Your task to perform on an android device: turn on translation in the chrome app Image 0: 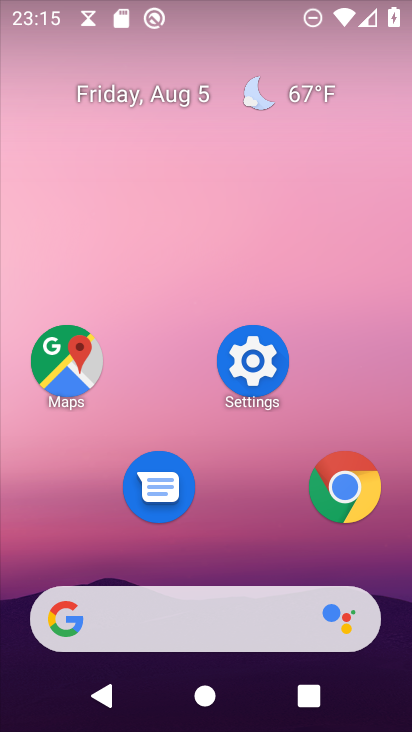
Step 0: click (350, 488)
Your task to perform on an android device: turn on translation in the chrome app Image 1: 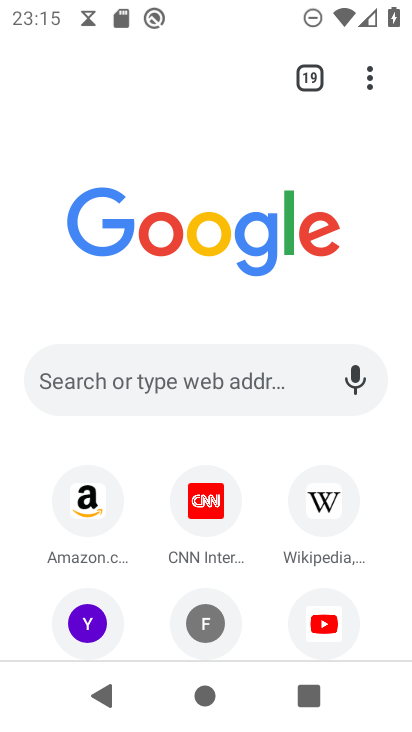
Step 1: drag from (365, 79) to (219, 556)
Your task to perform on an android device: turn on translation in the chrome app Image 2: 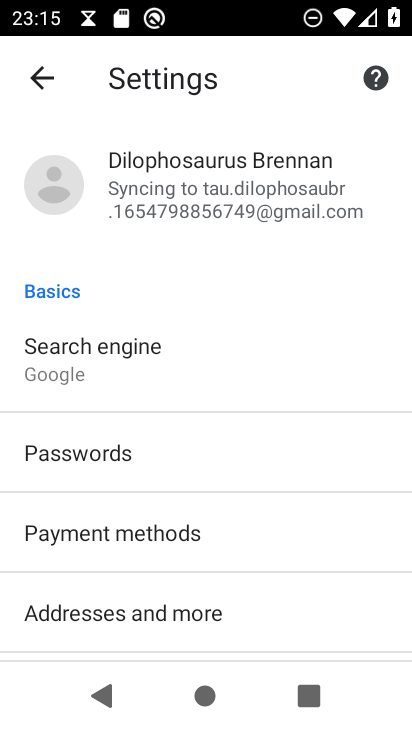
Step 2: drag from (255, 608) to (325, 129)
Your task to perform on an android device: turn on translation in the chrome app Image 3: 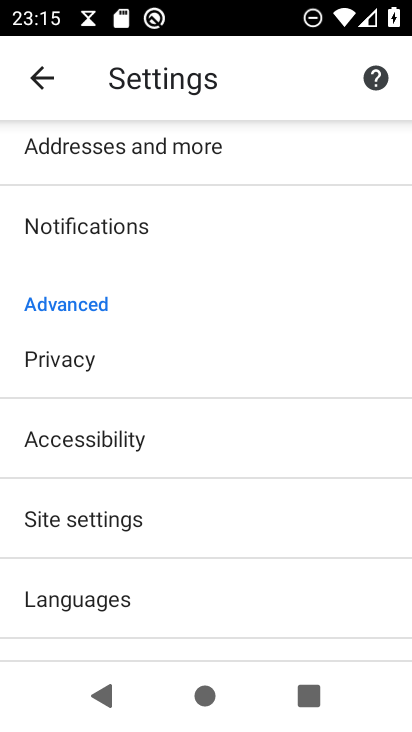
Step 3: click (155, 610)
Your task to perform on an android device: turn on translation in the chrome app Image 4: 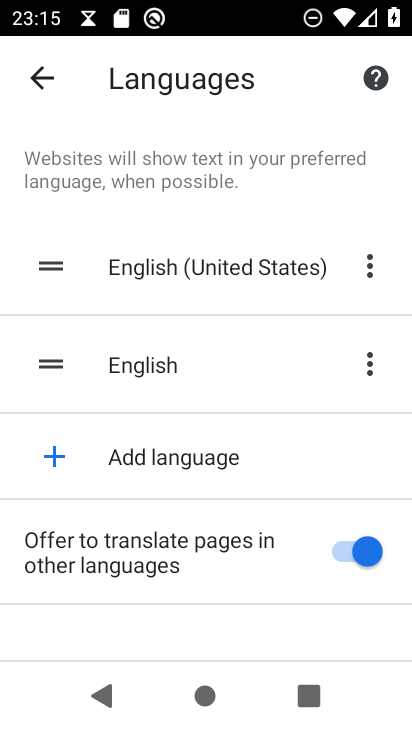
Step 4: task complete